Your task to perform on an android device: Open Chrome and go to the settings page Image 0: 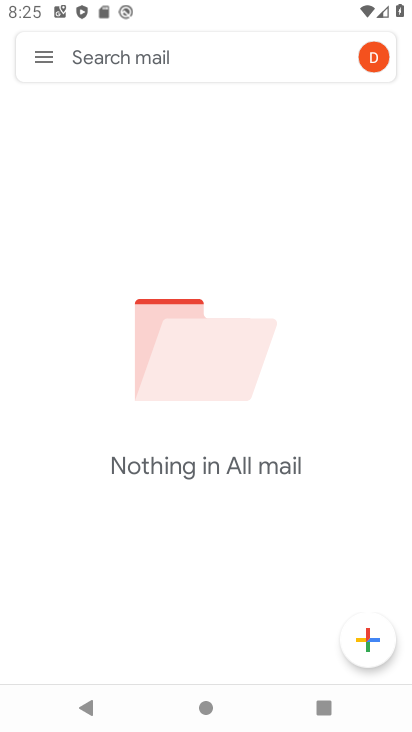
Step 0: press home button
Your task to perform on an android device: Open Chrome and go to the settings page Image 1: 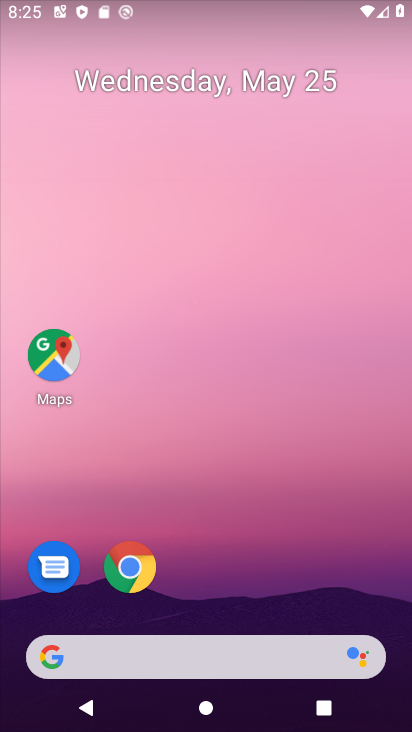
Step 1: click (144, 552)
Your task to perform on an android device: Open Chrome and go to the settings page Image 2: 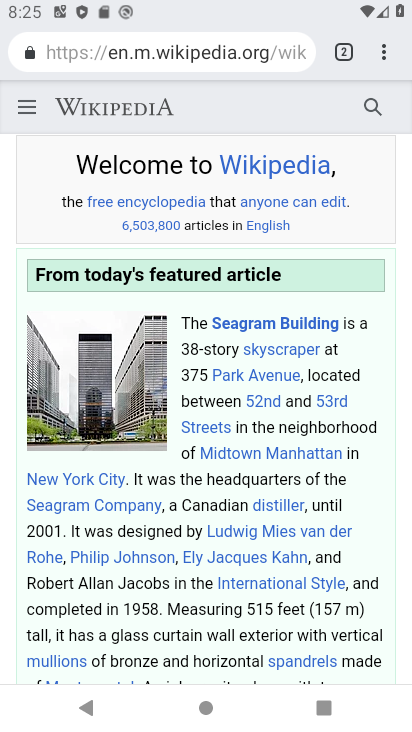
Step 2: click (388, 66)
Your task to perform on an android device: Open Chrome and go to the settings page Image 3: 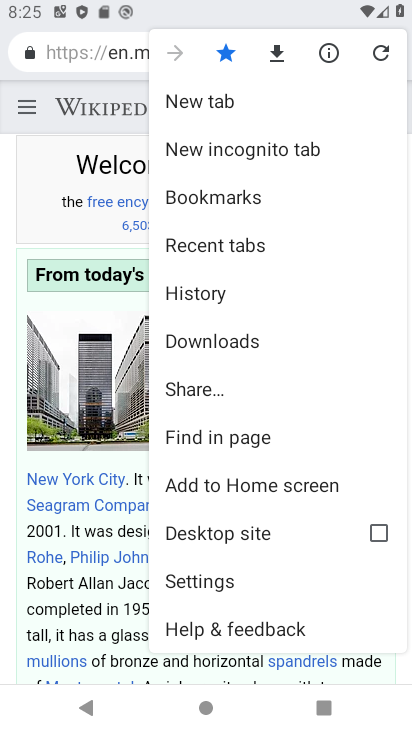
Step 3: click (255, 582)
Your task to perform on an android device: Open Chrome and go to the settings page Image 4: 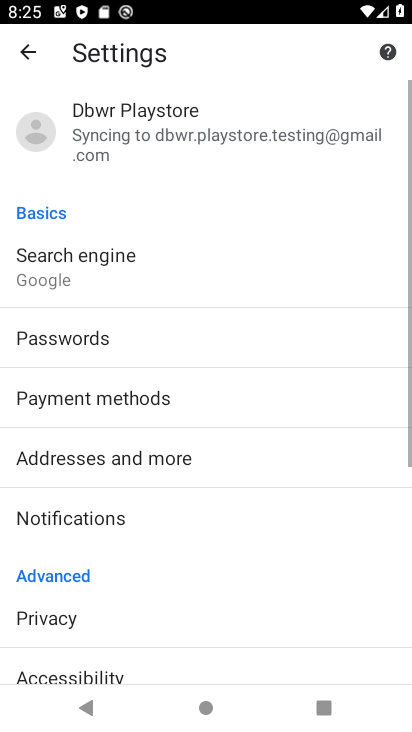
Step 4: task complete